Your task to perform on an android device: change the clock display to analog Image 0: 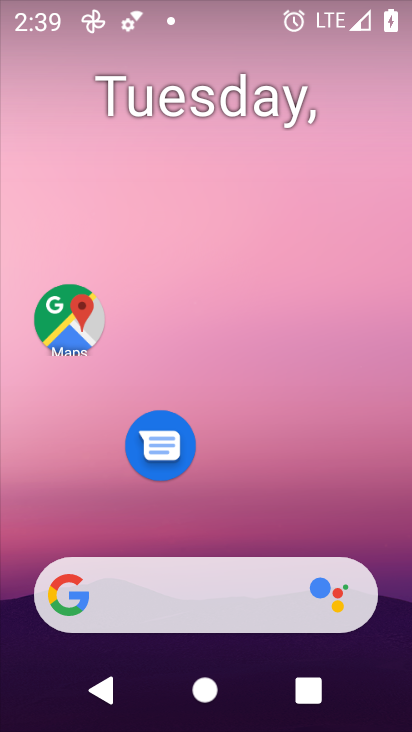
Step 0: drag from (248, 459) to (269, 61)
Your task to perform on an android device: change the clock display to analog Image 1: 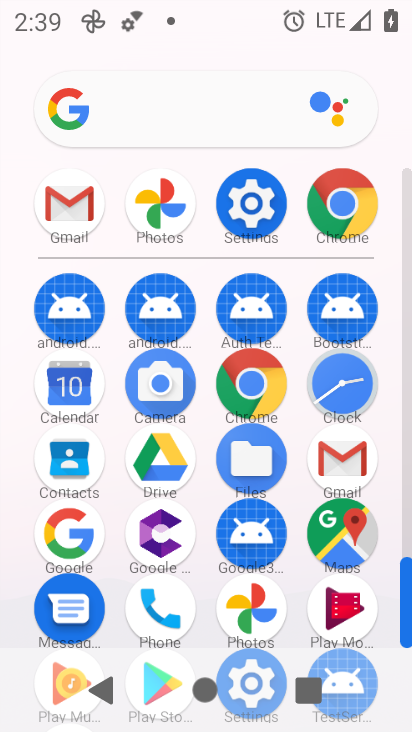
Step 1: click (351, 380)
Your task to perform on an android device: change the clock display to analog Image 2: 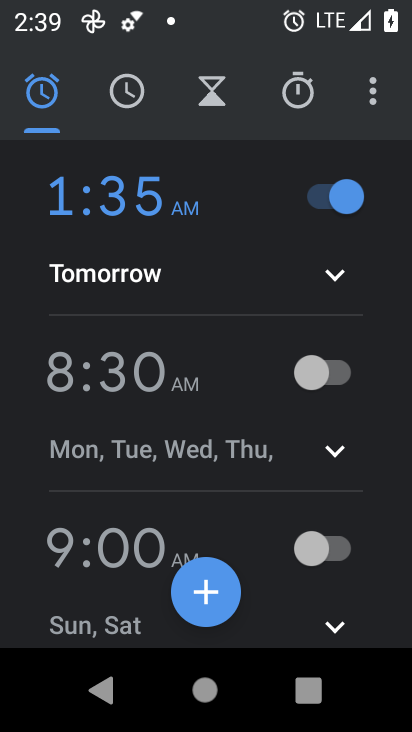
Step 2: click (369, 95)
Your task to perform on an android device: change the clock display to analog Image 3: 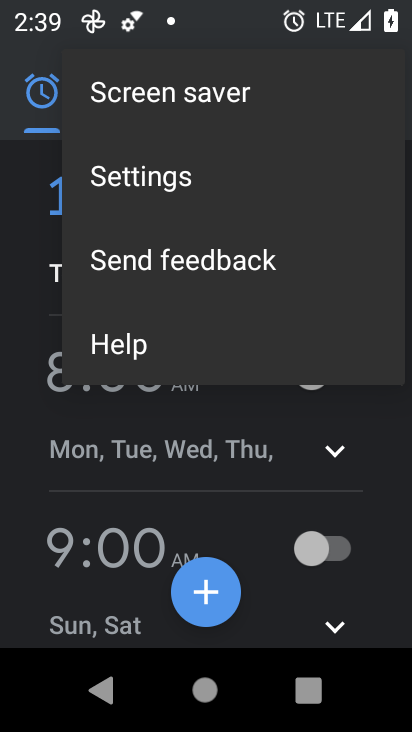
Step 3: click (169, 183)
Your task to perform on an android device: change the clock display to analog Image 4: 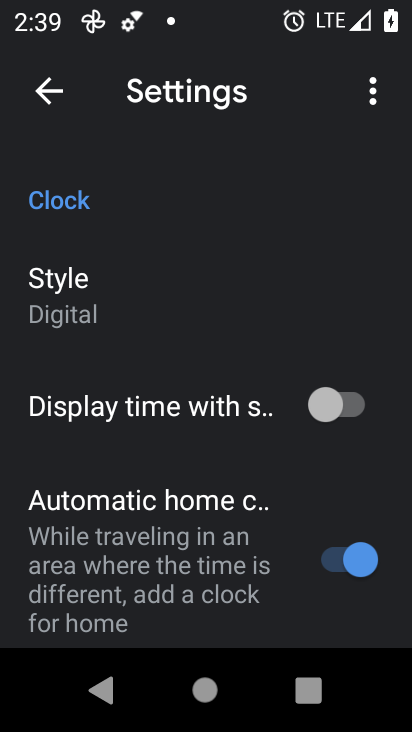
Step 4: click (63, 294)
Your task to perform on an android device: change the clock display to analog Image 5: 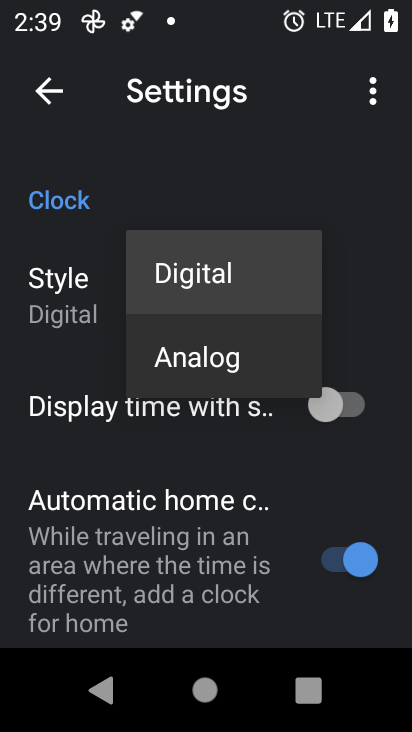
Step 5: click (187, 352)
Your task to perform on an android device: change the clock display to analog Image 6: 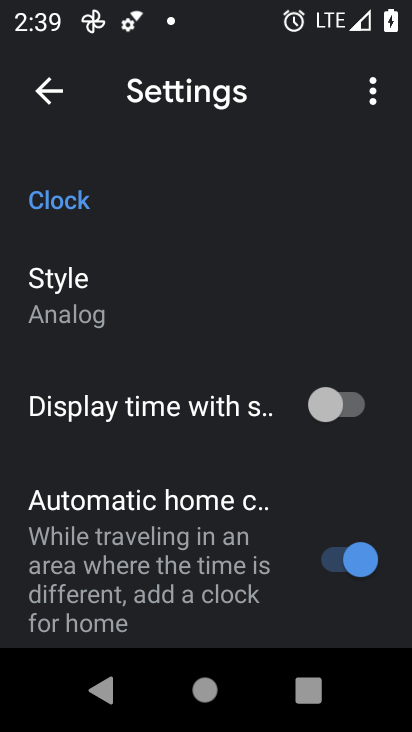
Step 6: task complete